Your task to perform on an android device: change the clock style Image 0: 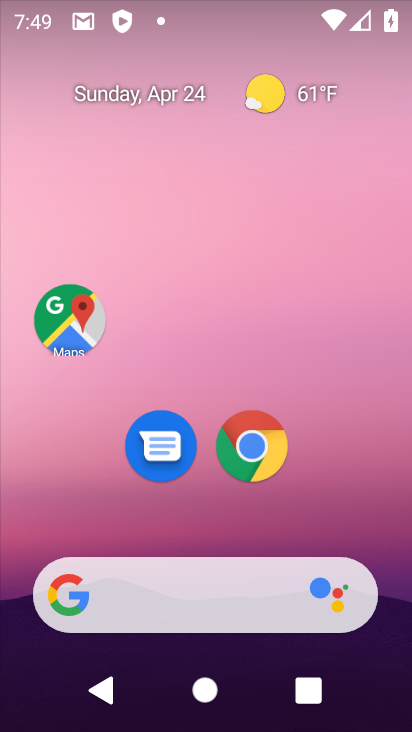
Step 0: drag from (255, 558) to (204, 13)
Your task to perform on an android device: change the clock style Image 1: 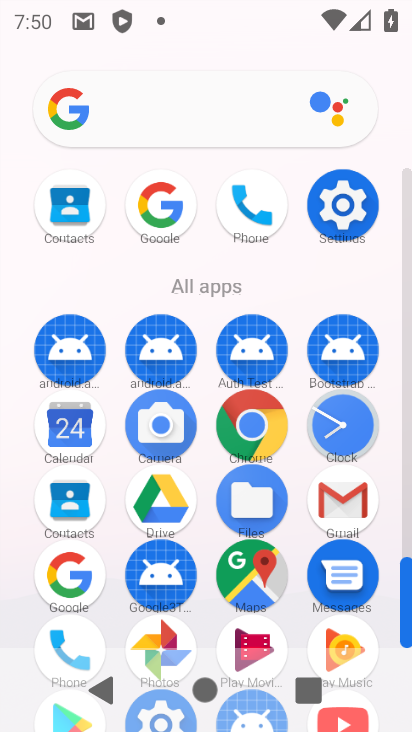
Step 1: click (338, 438)
Your task to perform on an android device: change the clock style Image 2: 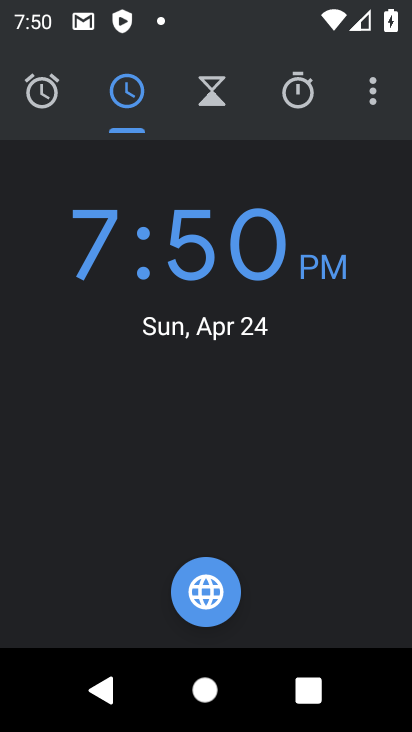
Step 2: click (369, 97)
Your task to perform on an android device: change the clock style Image 3: 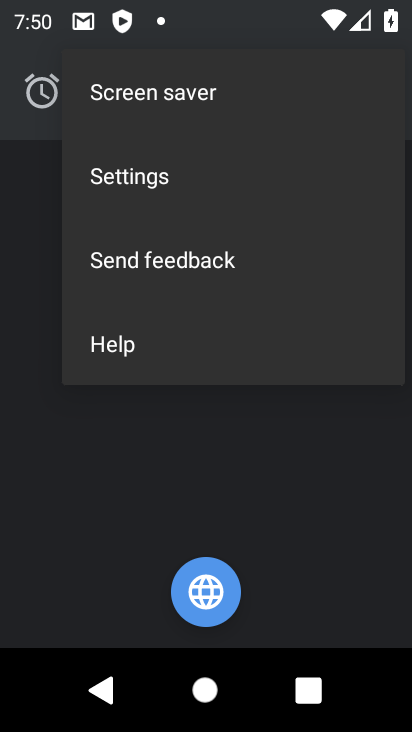
Step 3: click (209, 194)
Your task to perform on an android device: change the clock style Image 4: 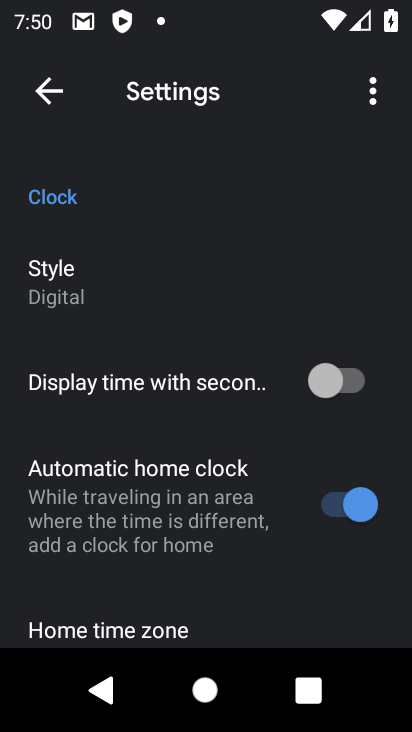
Step 4: click (162, 279)
Your task to perform on an android device: change the clock style Image 5: 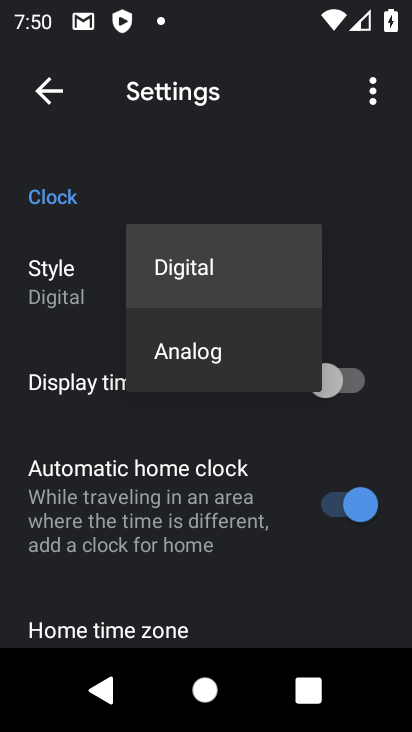
Step 5: click (186, 357)
Your task to perform on an android device: change the clock style Image 6: 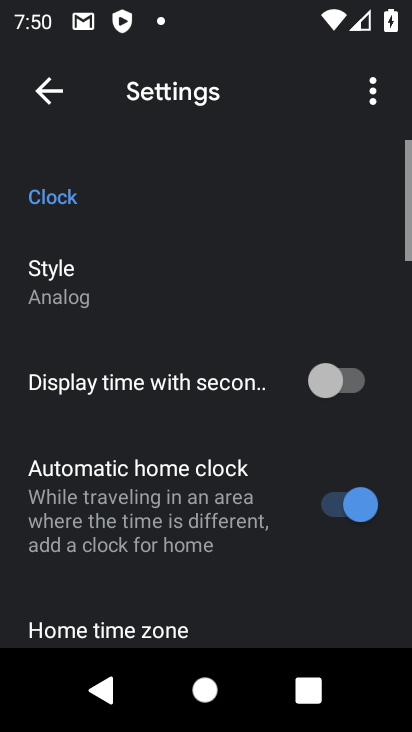
Step 6: task complete